Your task to perform on an android device: Show the shopping cart on ebay. Add apple airpods to the cart on ebay, then select checkout. Image 0: 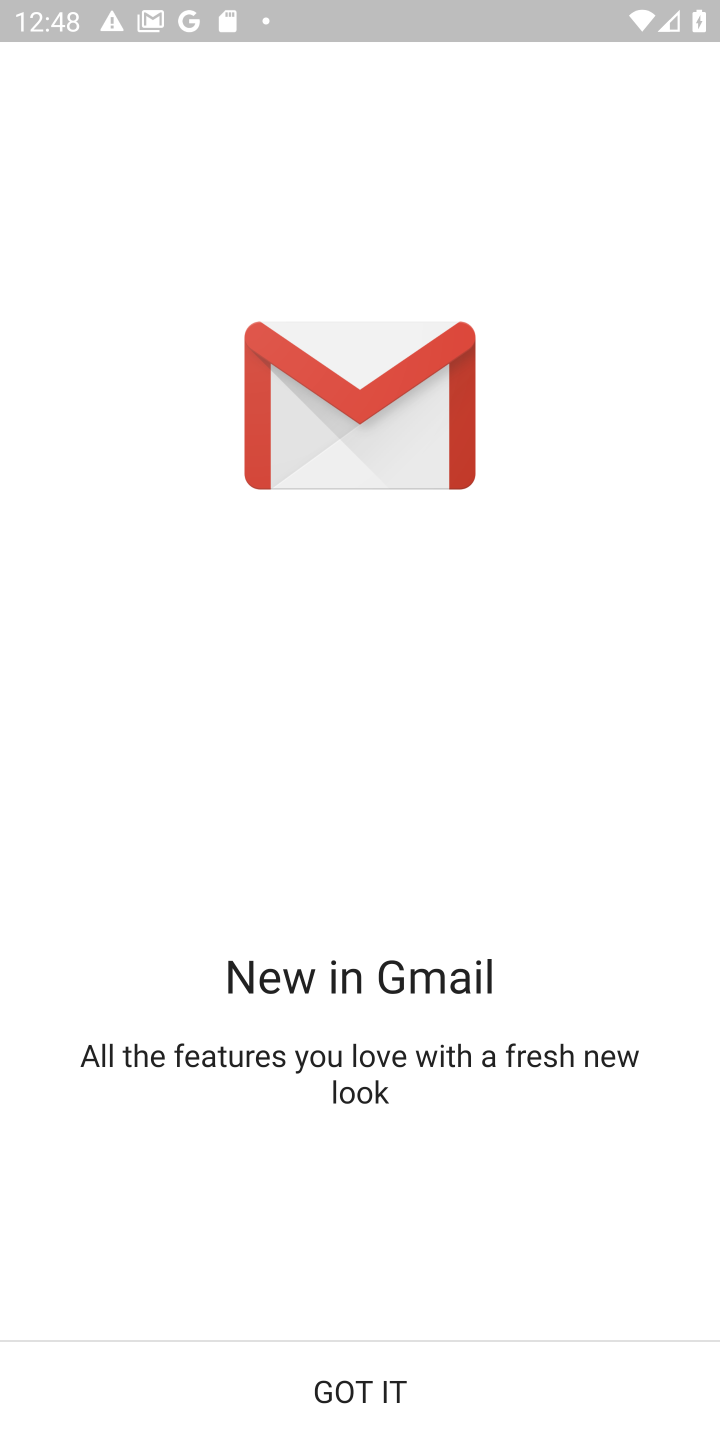
Step 0: press home button
Your task to perform on an android device: Show the shopping cart on ebay. Add apple airpods to the cart on ebay, then select checkout. Image 1: 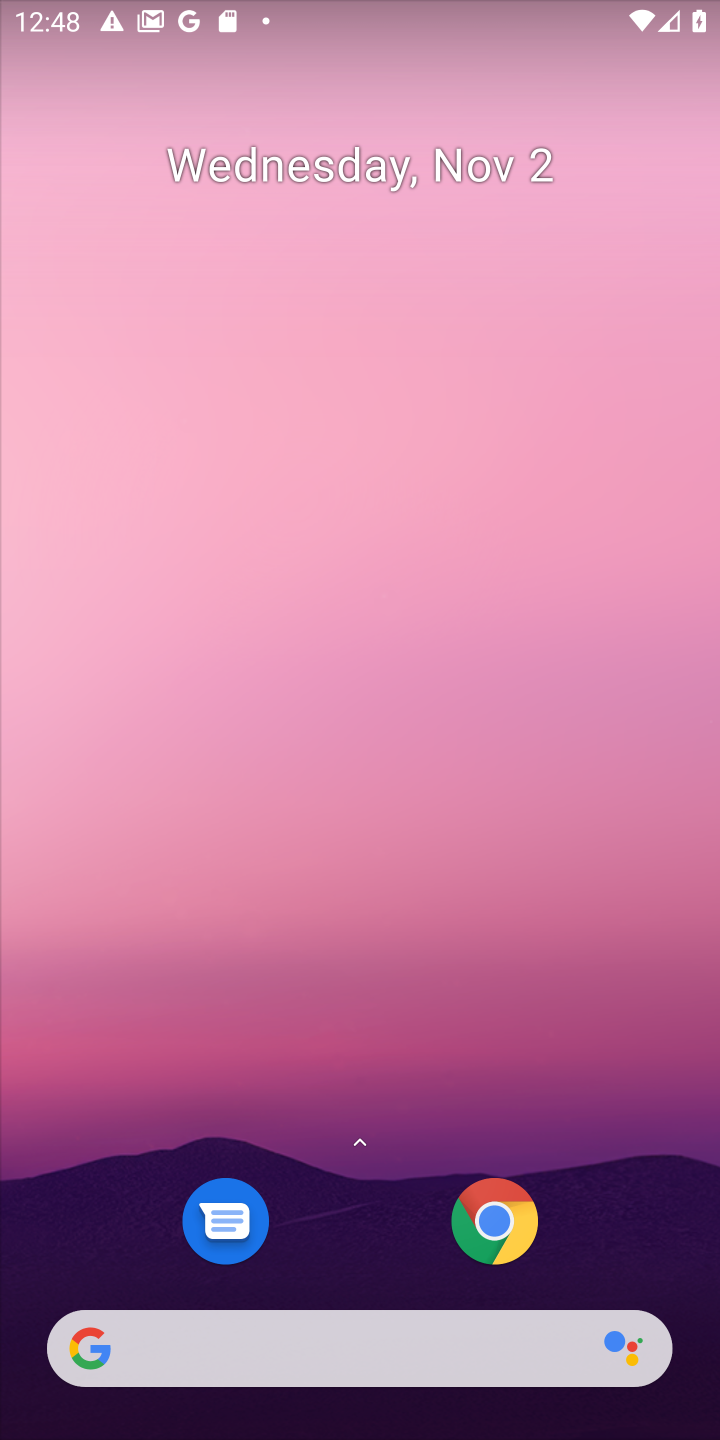
Step 1: click (399, 1364)
Your task to perform on an android device: Show the shopping cart on ebay. Add apple airpods to the cart on ebay, then select checkout. Image 2: 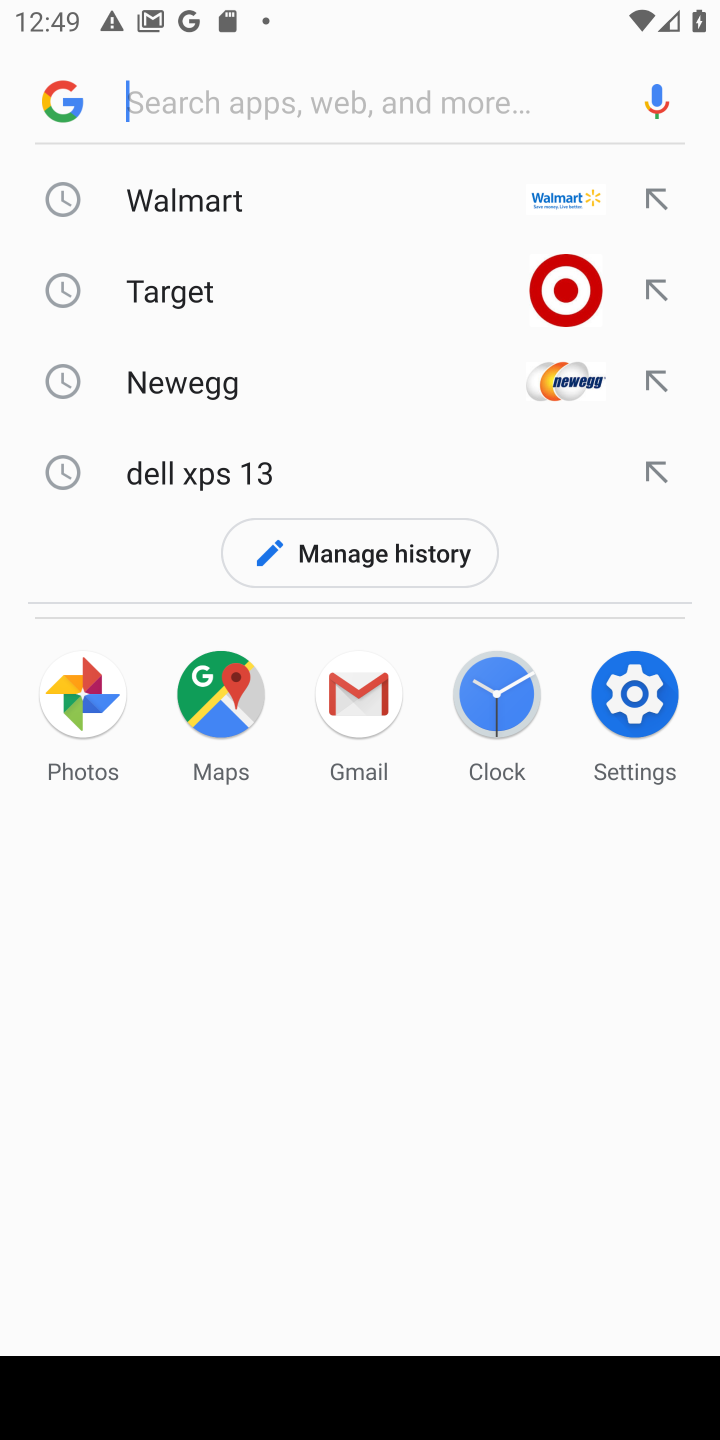
Step 2: type "ebay.com"
Your task to perform on an android device: Show the shopping cart on ebay. Add apple airpods to the cart on ebay, then select checkout. Image 3: 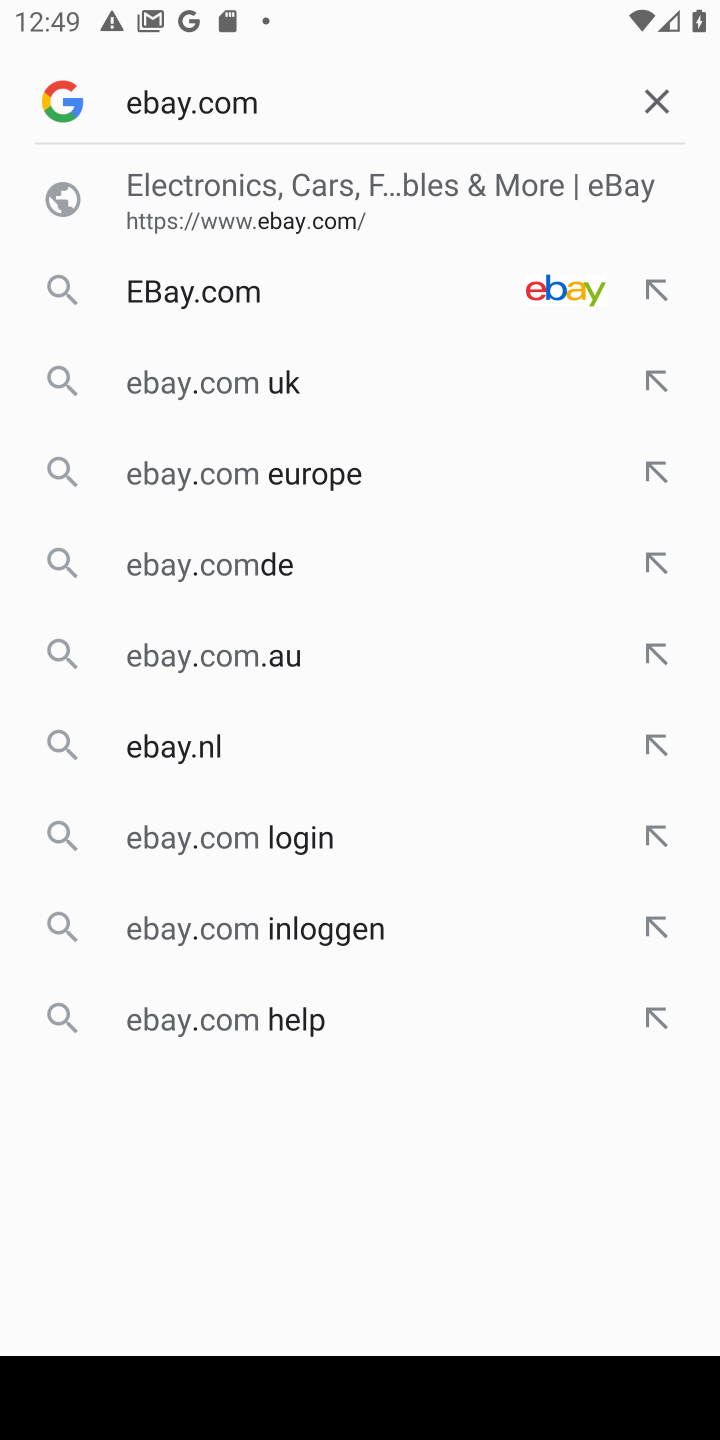
Step 3: click (295, 173)
Your task to perform on an android device: Show the shopping cart on ebay. Add apple airpods to the cart on ebay, then select checkout. Image 4: 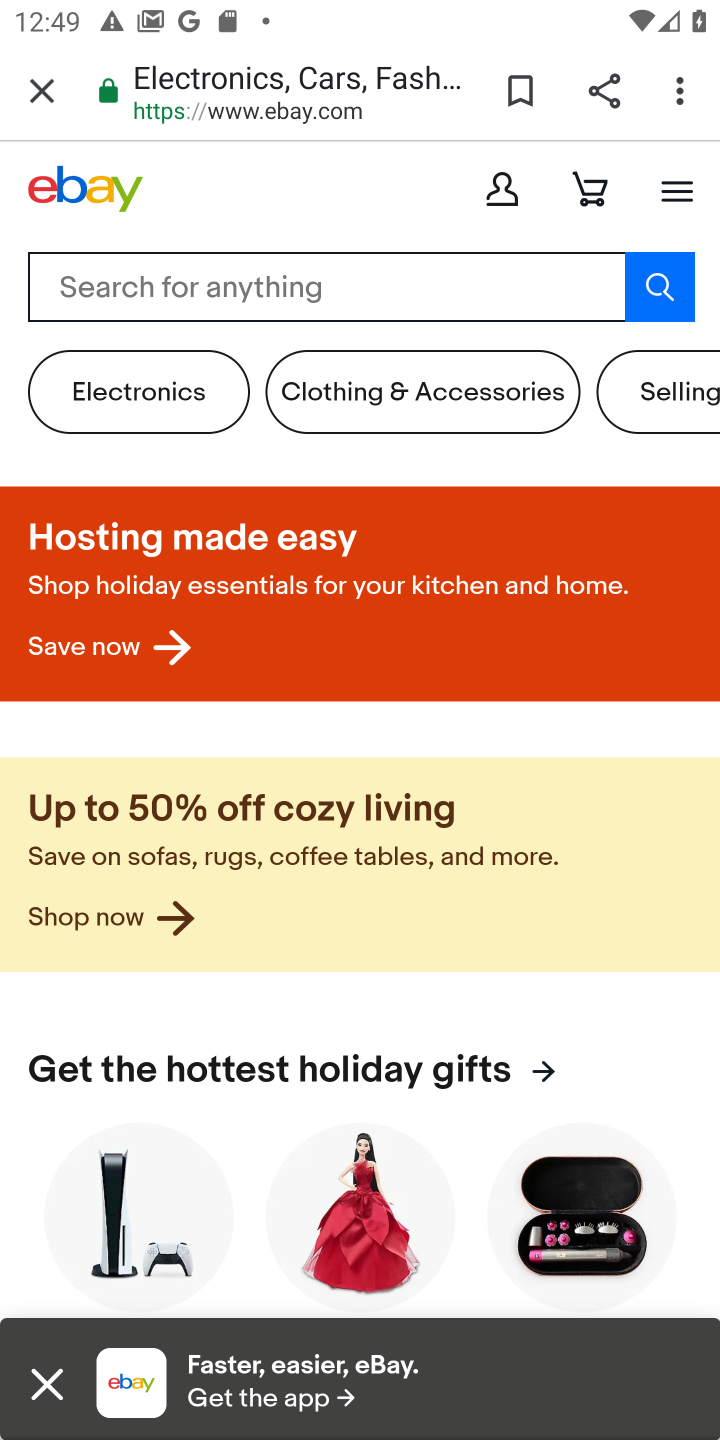
Step 4: click (280, 286)
Your task to perform on an android device: Show the shopping cart on ebay. Add apple airpods to the cart on ebay, then select checkout. Image 5: 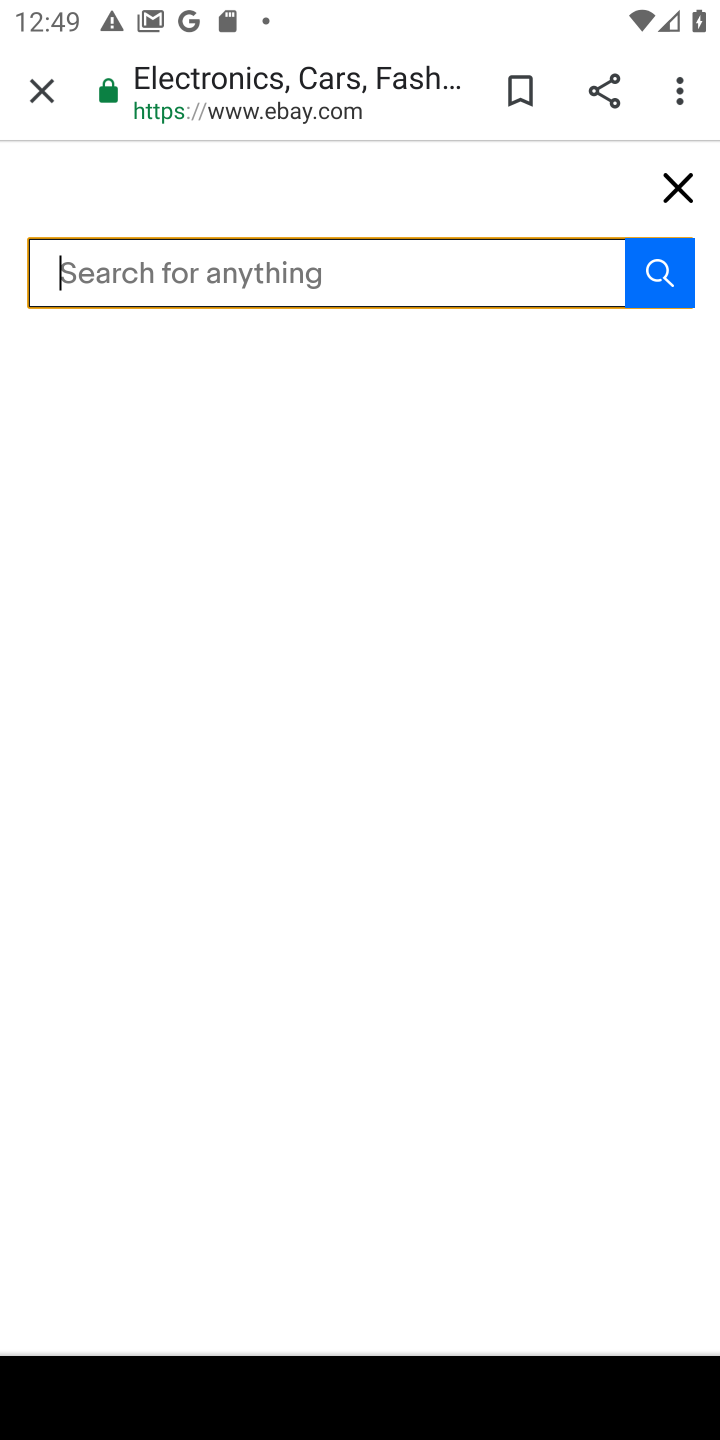
Step 5: type "apple air pods"
Your task to perform on an android device: Show the shopping cart on ebay. Add apple airpods to the cart on ebay, then select checkout. Image 6: 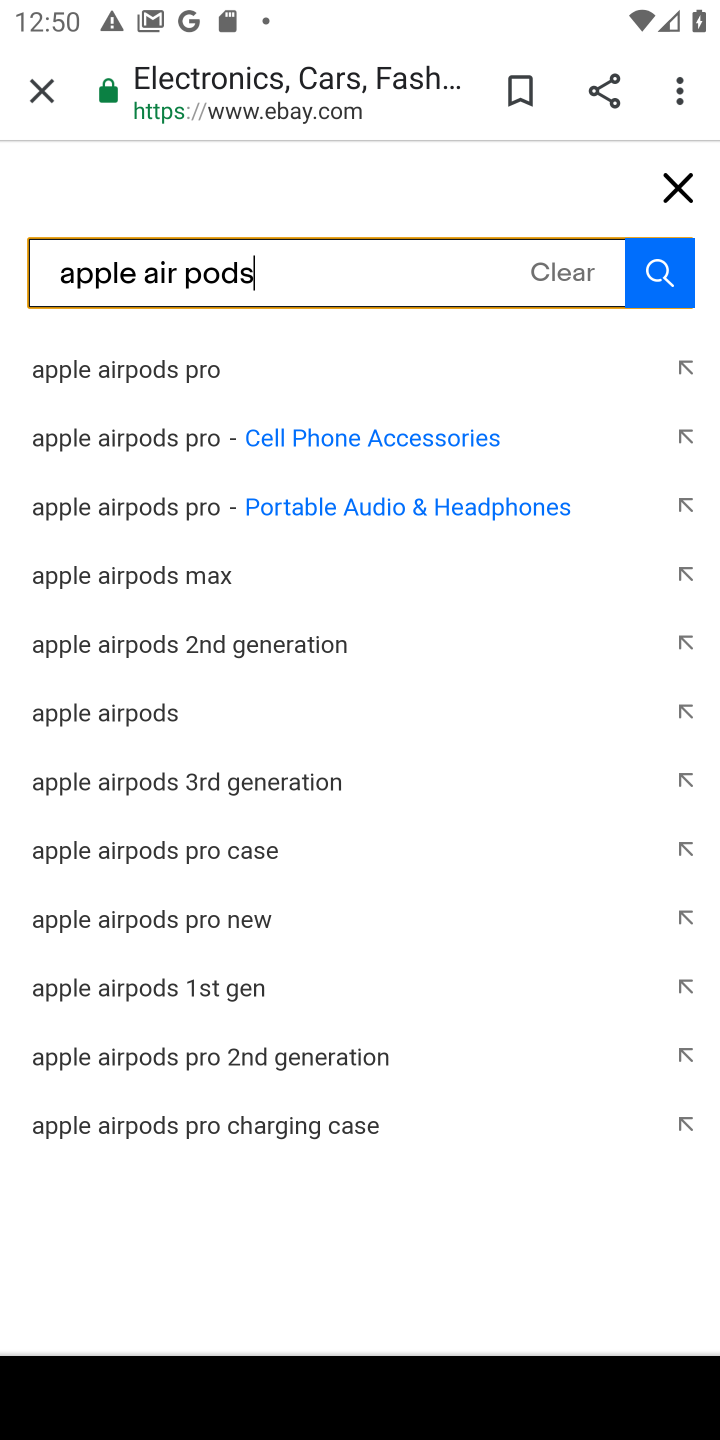
Step 6: click (426, 366)
Your task to perform on an android device: Show the shopping cart on ebay. Add apple airpods to the cart on ebay, then select checkout. Image 7: 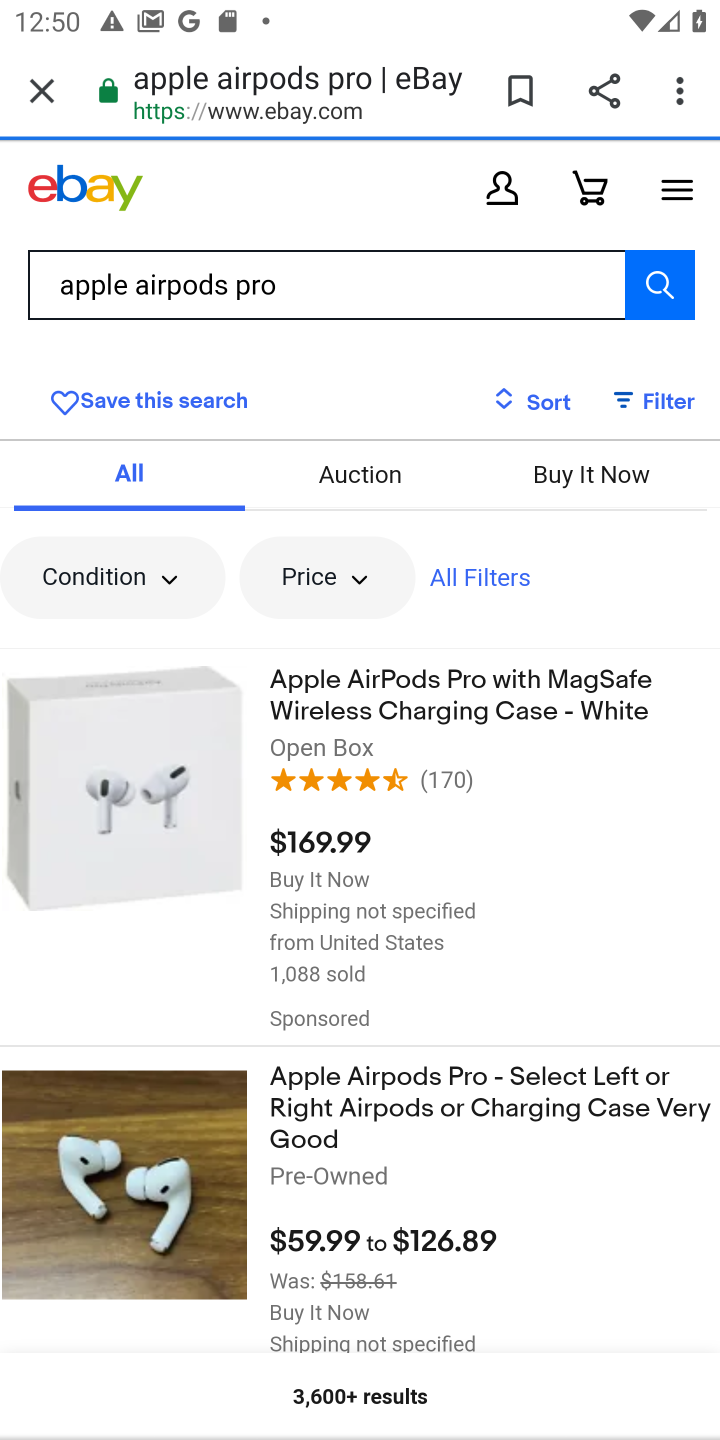
Step 7: click (394, 756)
Your task to perform on an android device: Show the shopping cart on ebay. Add apple airpods to the cart on ebay, then select checkout. Image 8: 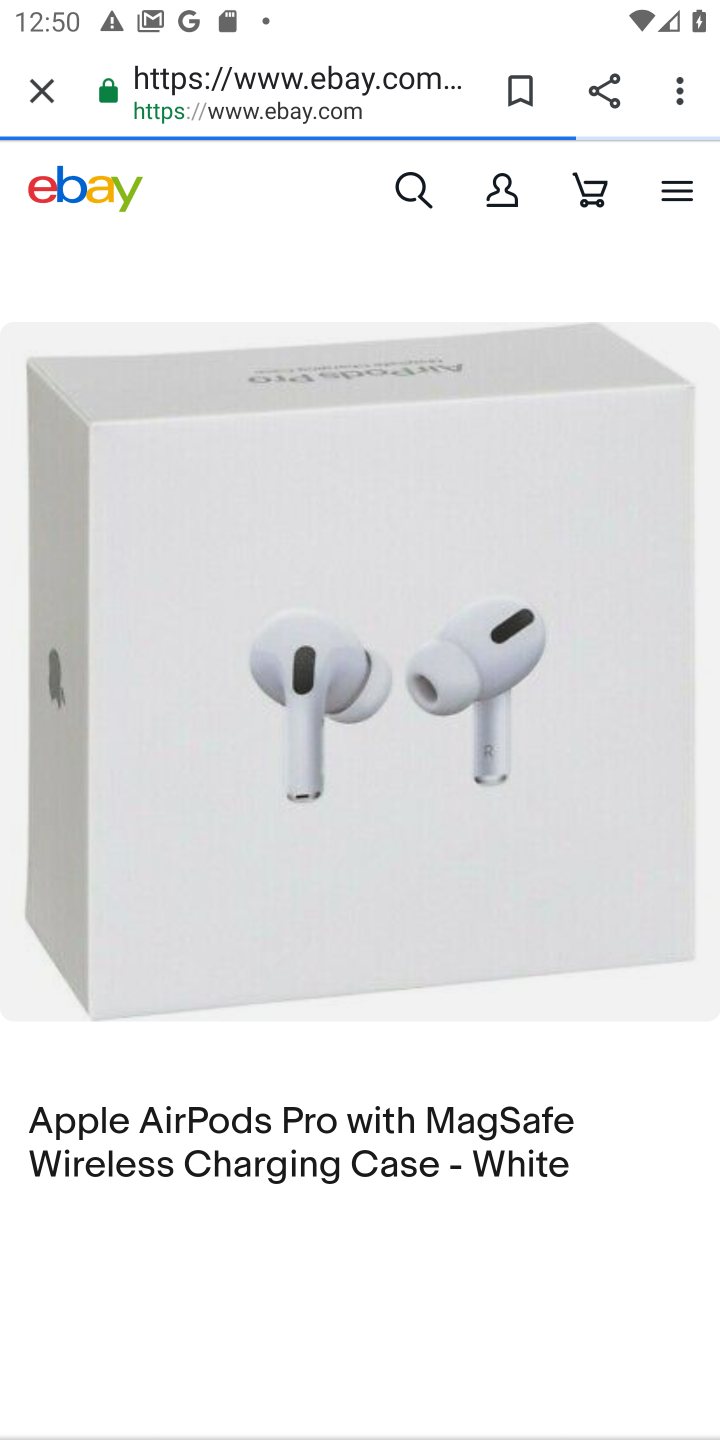
Step 8: task complete